Your task to perform on an android device: Open battery settings Image 0: 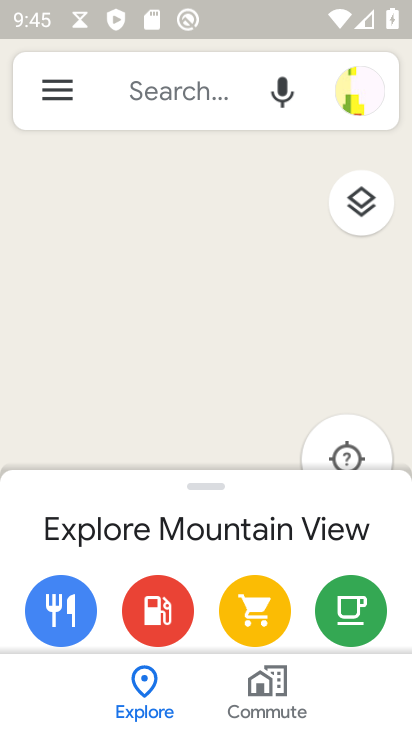
Step 0: press home button
Your task to perform on an android device: Open battery settings Image 1: 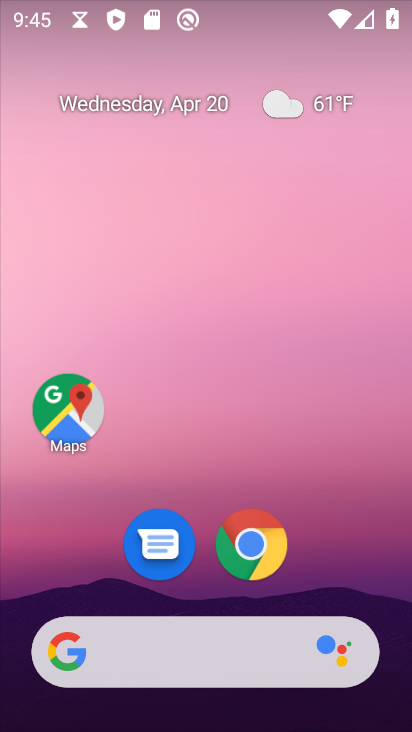
Step 1: drag from (144, 654) to (327, 51)
Your task to perform on an android device: Open battery settings Image 2: 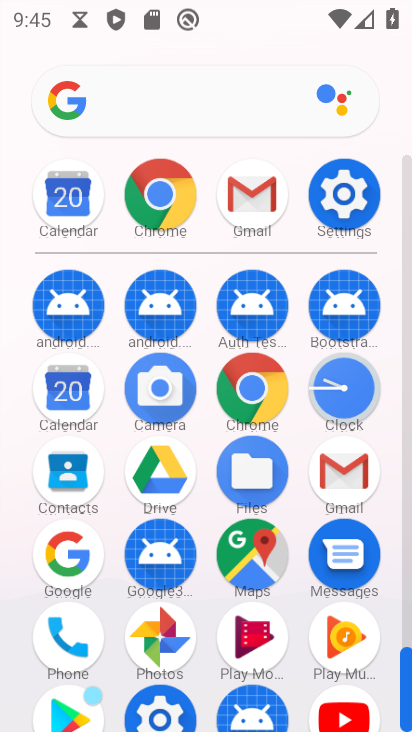
Step 2: click (345, 205)
Your task to perform on an android device: Open battery settings Image 3: 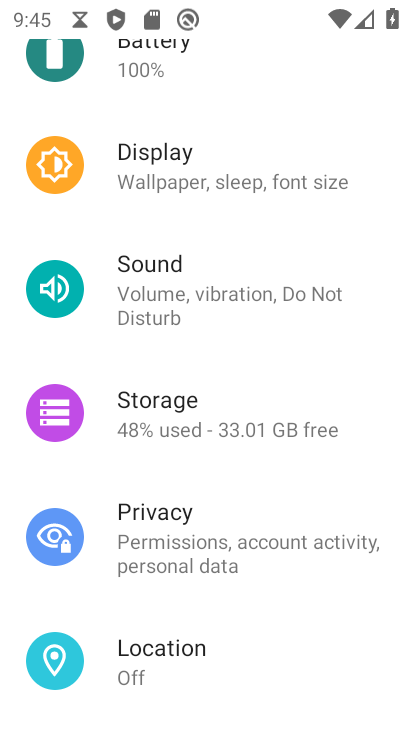
Step 3: drag from (253, 165) to (273, 498)
Your task to perform on an android device: Open battery settings Image 4: 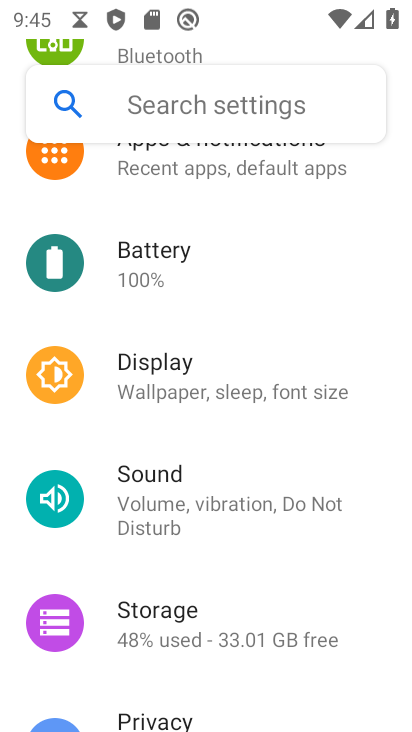
Step 4: click (154, 263)
Your task to perform on an android device: Open battery settings Image 5: 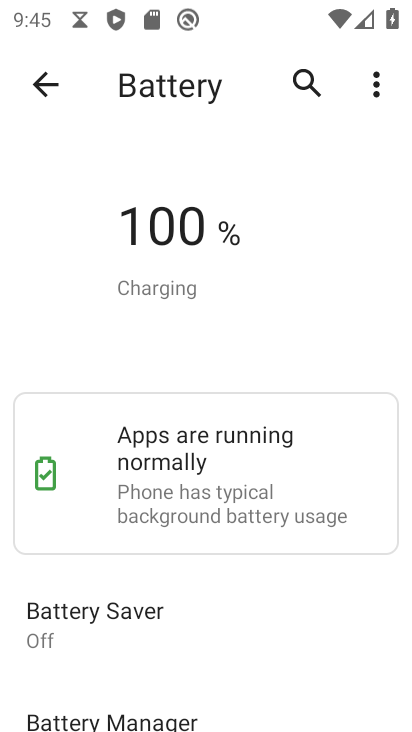
Step 5: task complete